Your task to perform on an android device: Check the weather Image 0: 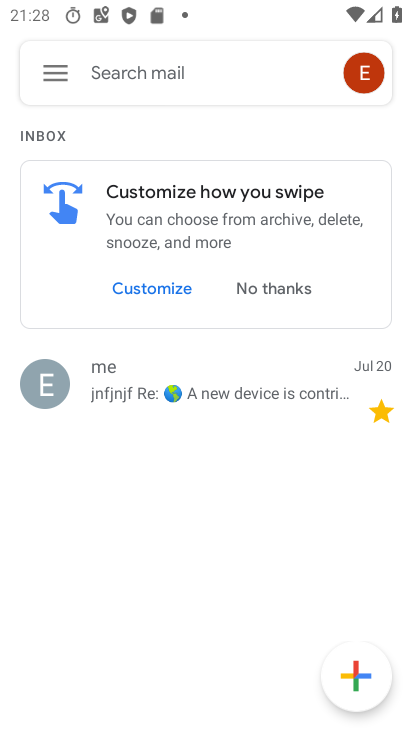
Step 0: press home button
Your task to perform on an android device: Check the weather Image 1: 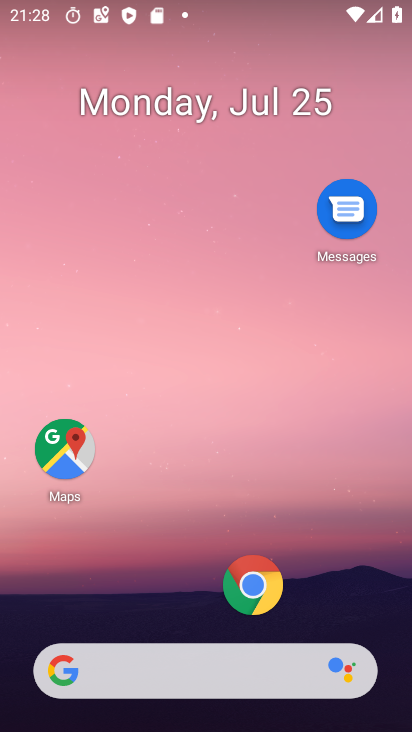
Step 1: click (136, 669)
Your task to perform on an android device: Check the weather Image 2: 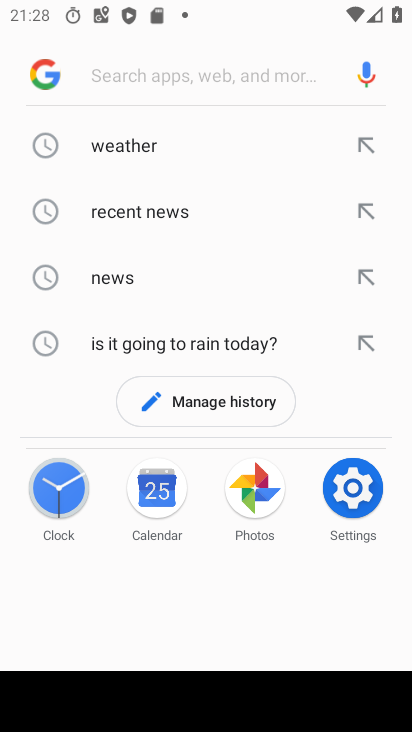
Step 2: click (136, 151)
Your task to perform on an android device: Check the weather Image 3: 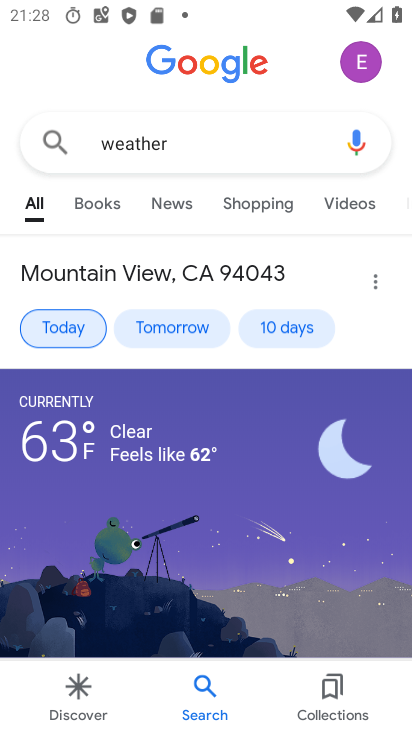
Step 3: task complete